Your task to perform on an android device: check the backup settings in the google photos Image 0: 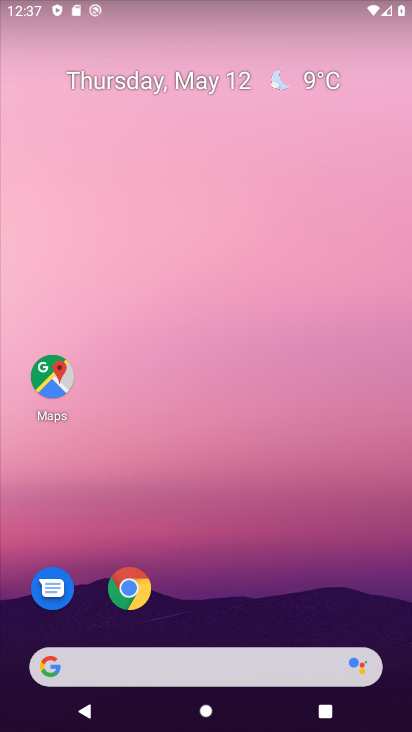
Step 0: drag from (271, 651) to (232, 324)
Your task to perform on an android device: check the backup settings in the google photos Image 1: 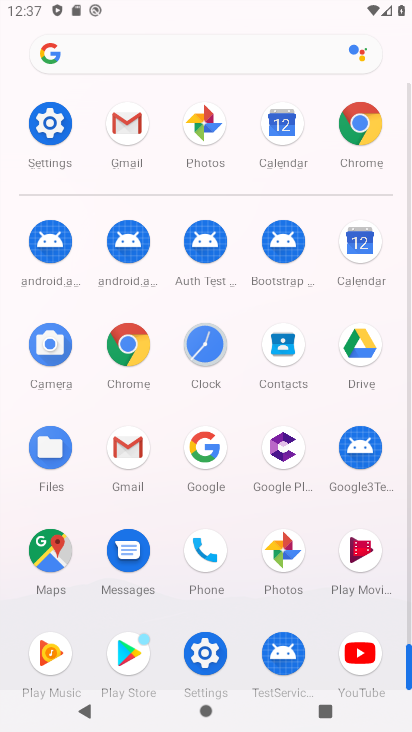
Step 1: click (289, 548)
Your task to perform on an android device: check the backup settings in the google photos Image 2: 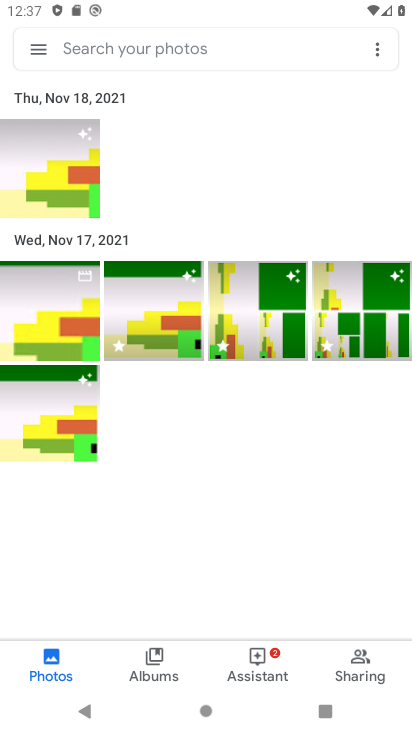
Step 2: drag from (169, 245) to (179, 605)
Your task to perform on an android device: check the backup settings in the google photos Image 3: 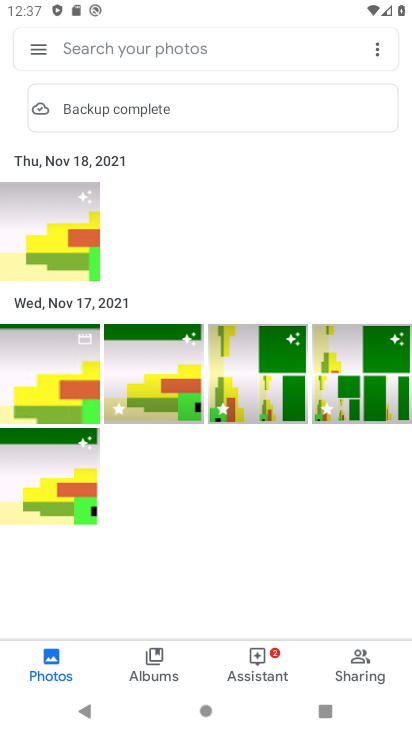
Step 3: drag from (33, 314) to (55, 524)
Your task to perform on an android device: check the backup settings in the google photos Image 4: 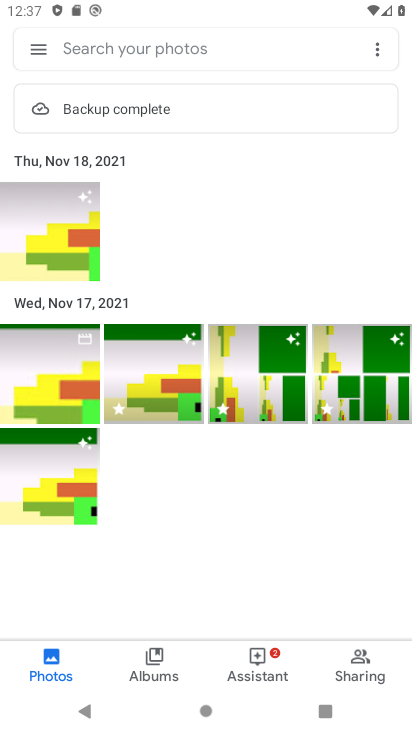
Step 4: drag from (120, 227) to (235, 504)
Your task to perform on an android device: check the backup settings in the google photos Image 5: 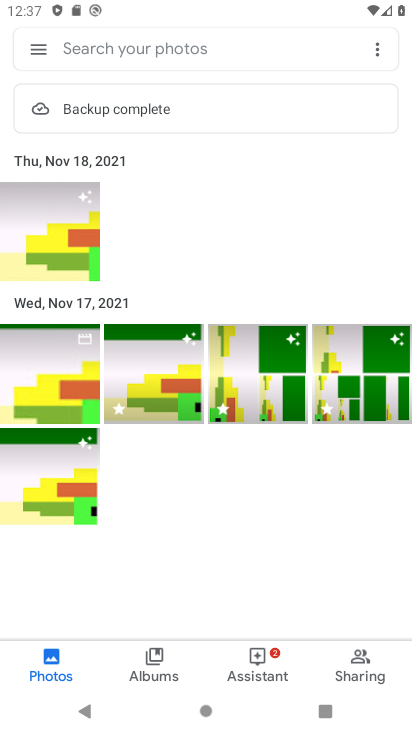
Step 5: click (40, 105)
Your task to perform on an android device: check the backup settings in the google photos Image 6: 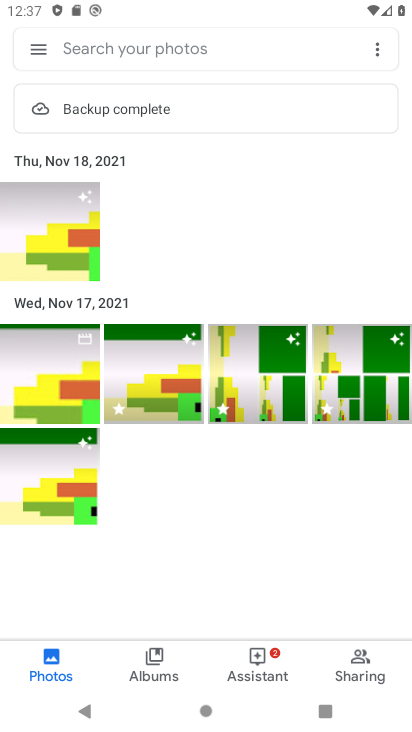
Step 6: click (50, 115)
Your task to perform on an android device: check the backup settings in the google photos Image 7: 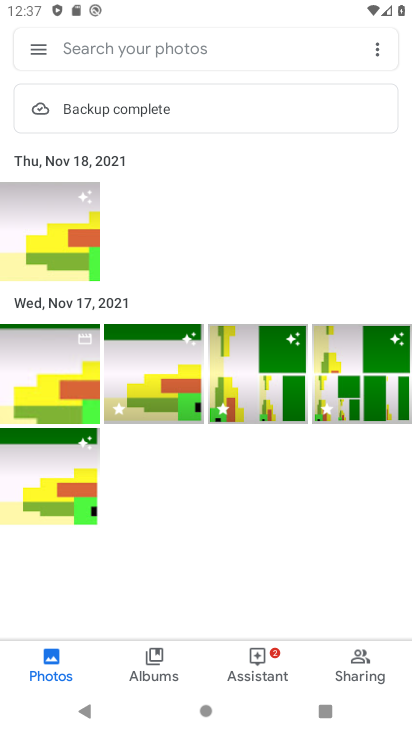
Step 7: click (50, 115)
Your task to perform on an android device: check the backup settings in the google photos Image 8: 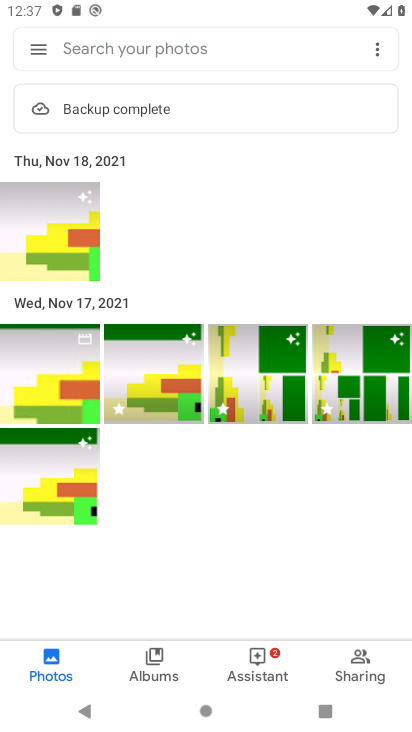
Step 8: click (50, 115)
Your task to perform on an android device: check the backup settings in the google photos Image 9: 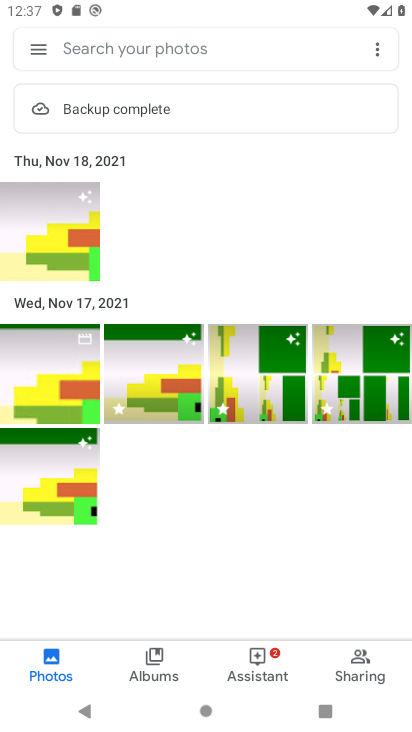
Step 9: click (50, 115)
Your task to perform on an android device: check the backup settings in the google photos Image 10: 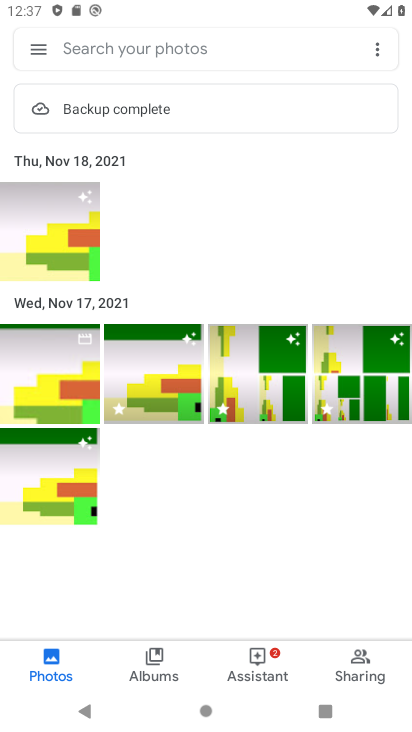
Step 10: click (50, 115)
Your task to perform on an android device: check the backup settings in the google photos Image 11: 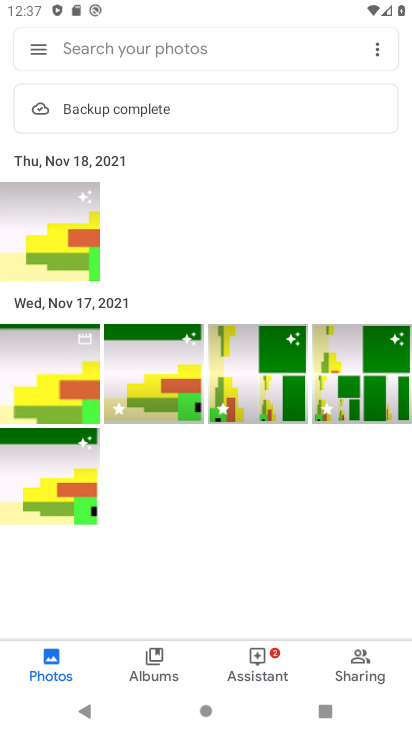
Step 11: click (45, 111)
Your task to perform on an android device: check the backup settings in the google photos Image 12: 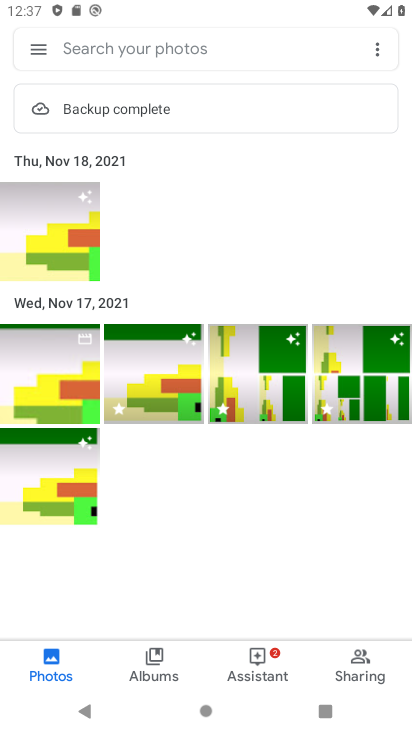
Step 12: click (45, 111)
Your task to perform on an android device: check the backup settings in the google photos Image 13: 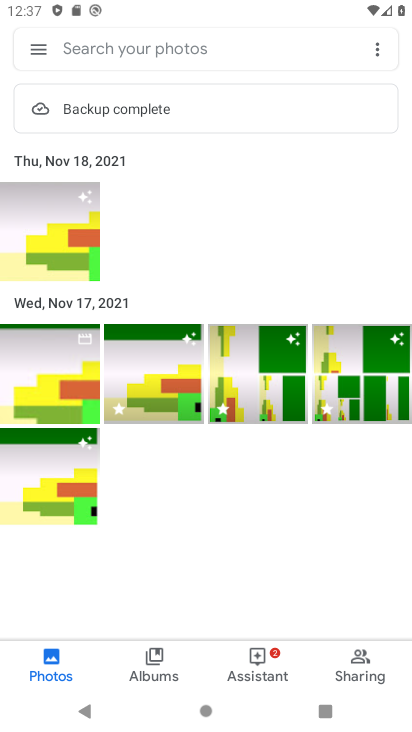
Step 13: click (45, 111)
Your task to perform on an android device: check the backup settings in the google photos Image 14: 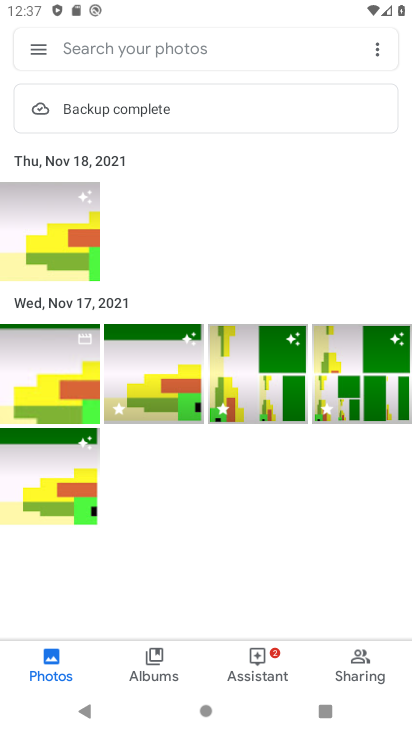
Step 14: click (38, 110)
Your task to perform on an android device: check the backup settings in the google photos Image 15: 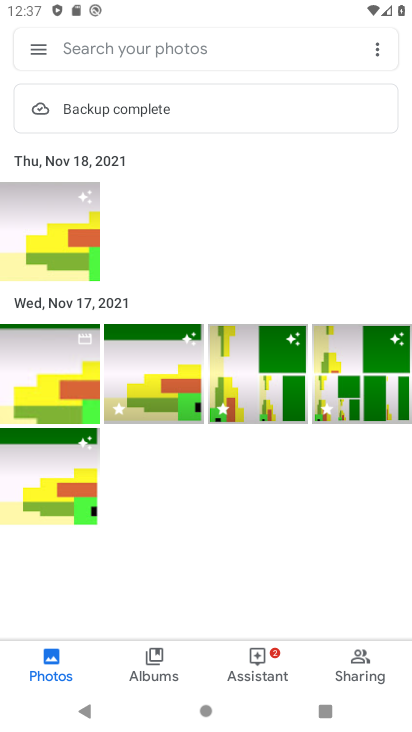
Step 15: click (37, 111)
Your task to perform on an android device: check the backup settings in the google photos Image 16: 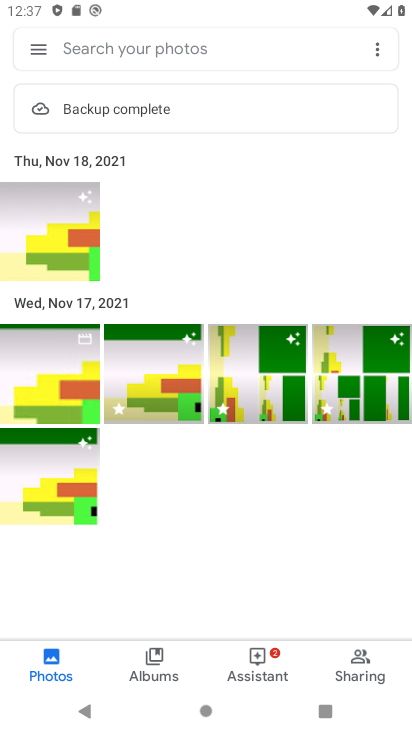
Step 16: click (37, 111)
Your task to perform on an android device: check the backup settings in the google photos Image 17: 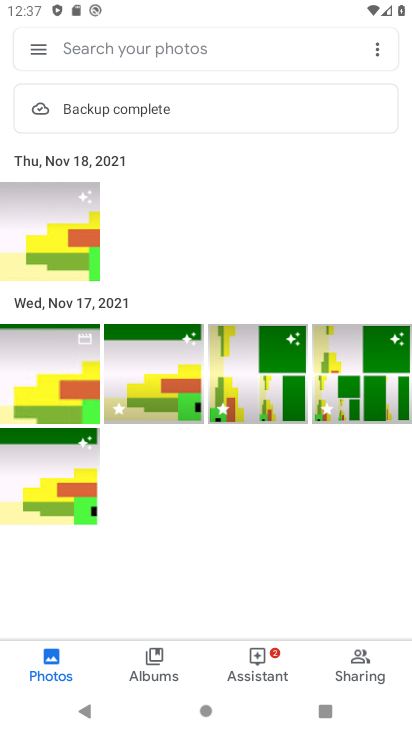
Step 17: click (163, 109)
Your task to perform on an android device: check the backup settings in the google photos Image 18: 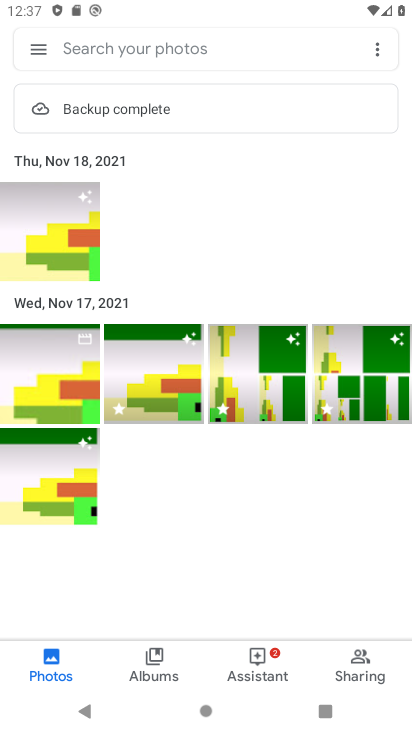
Step 18: click (163, 109)
Your task to perform on an android device: check the backup settings in the google photos Image 19: 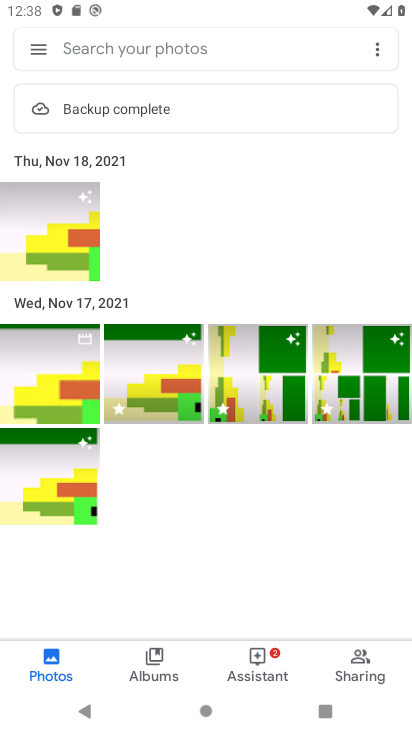
Step 19: task complete